Your task to perform on an android device: Go to calendar. Show me events next week Image 0: 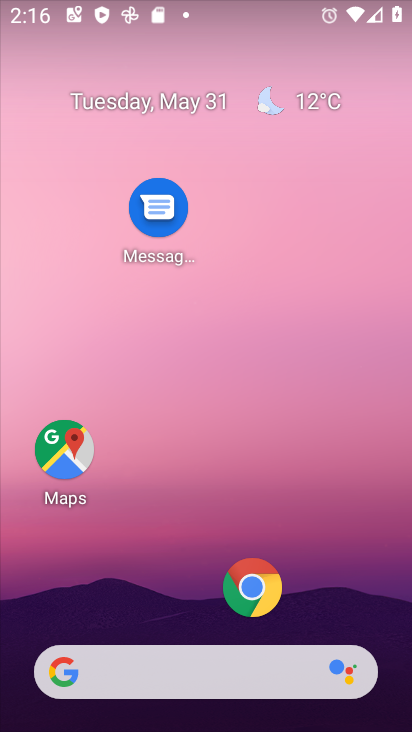
Step 0: drag from (204, 601) to (264, 183)
Your task to perform on an android device: Go to calendar. Show me events next week Image 1: 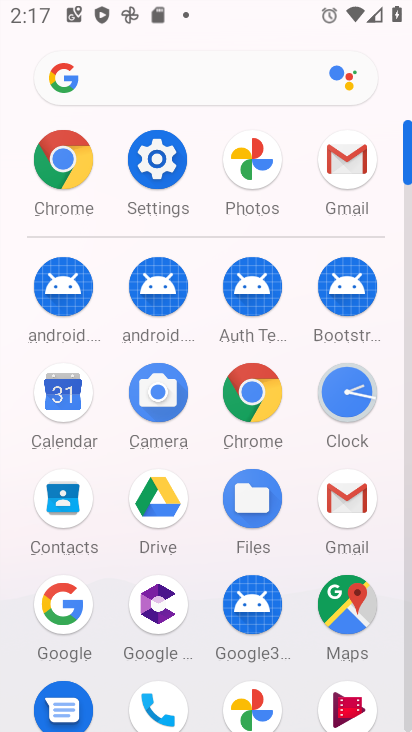
Step 1: click (55, 384)
Your task to perform on an android device: Go to calendar. Show me events next week Image 2: 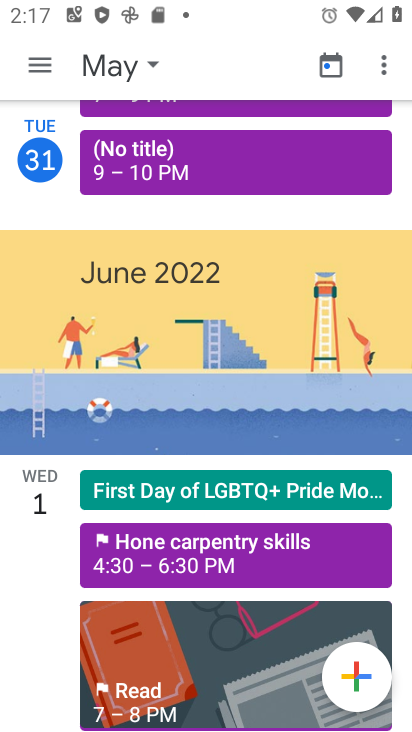
Step 2: click (111, 69)
Your task to perform on an android device: Go to calendar. Show me events next week Image 3: 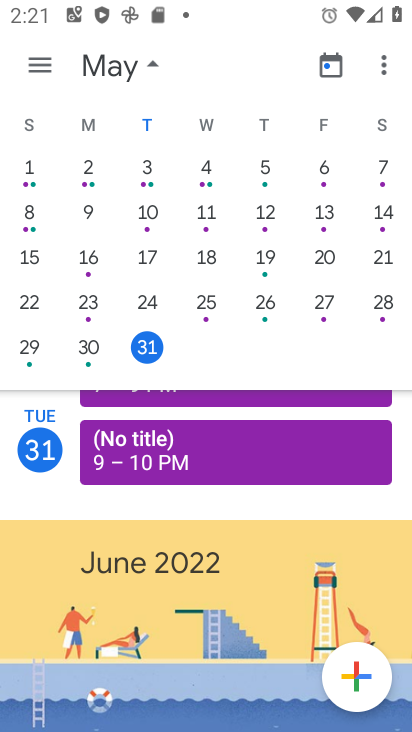
Step 3: click (162, 74)
Your task to perform on an android device: Go to calendar. Show me events next week Image 4: 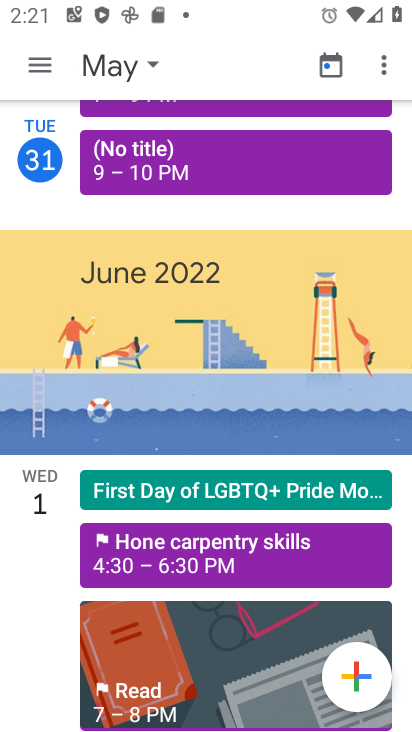
Step 4: task complete